Your task to perform on an android device: toggle notifications settings in the gmail app Image 0: 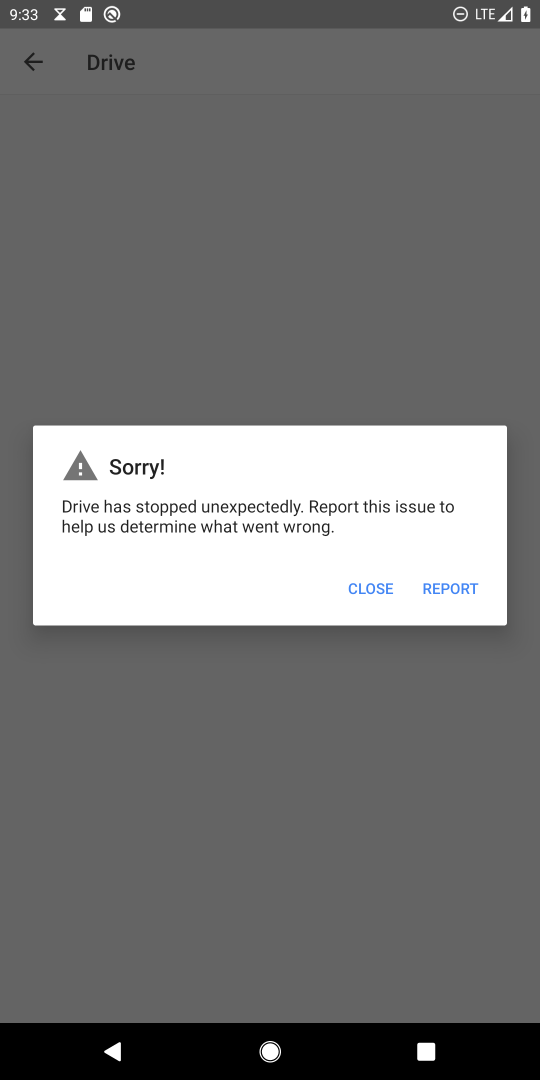
Step 0: press home button
Your task to perform on an android device: toggle notifications settings in the gmail app Image 1: 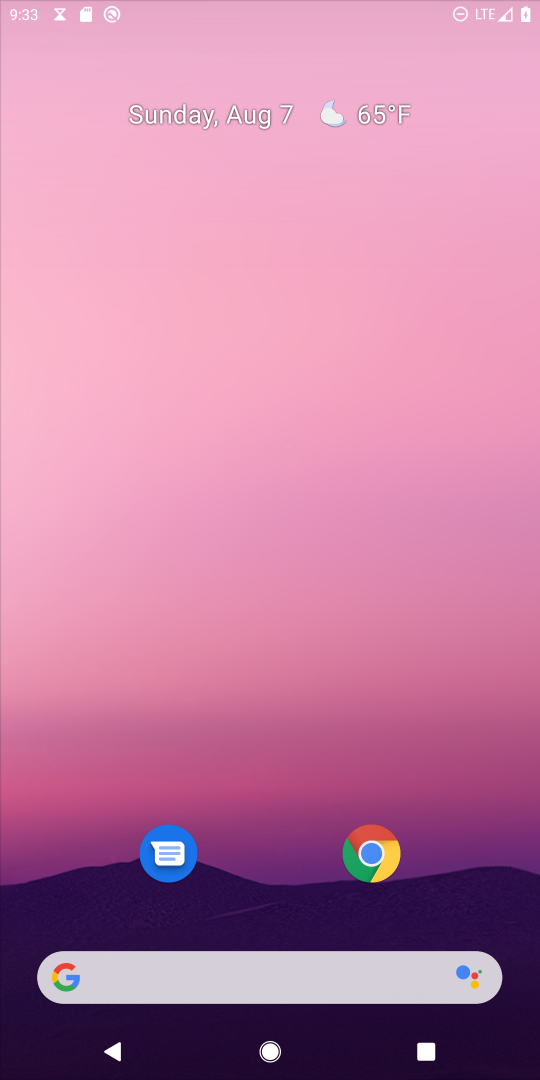
Step 1: drag from (232, 970) to (240, 480)
Your task to perform on an android device: toggle notifications settings in the gmail app Image 2: 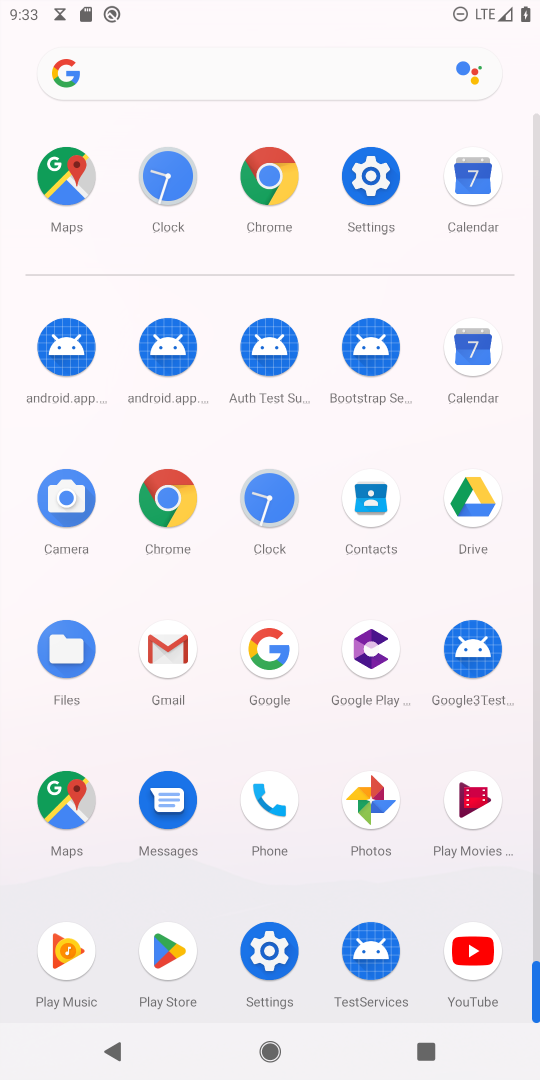
Step 2: click (369, 166)
Your task to perform on an android device: toggle notifications settings in the gmail app Image 3: 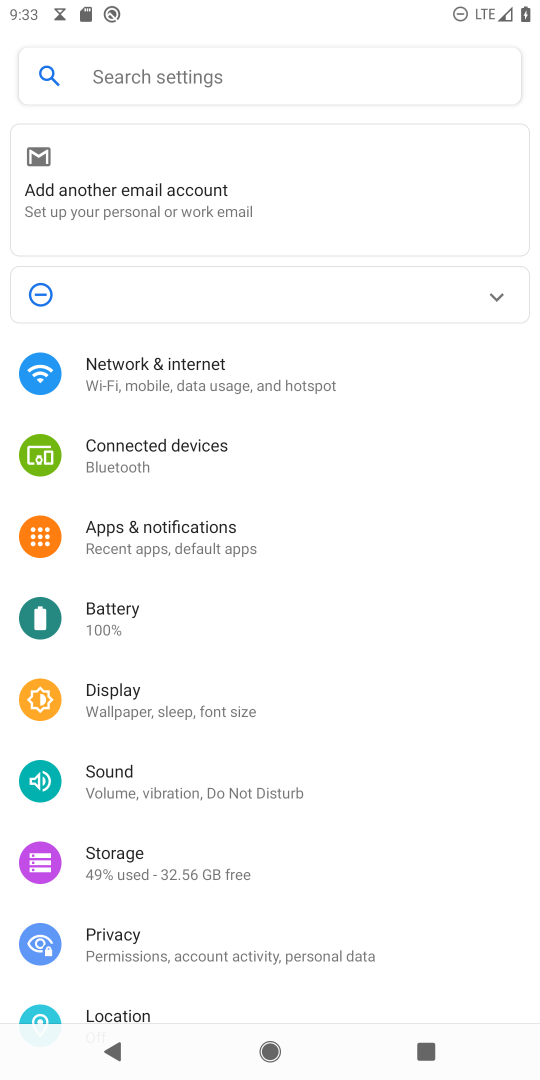
Step 3: click (200, 551)
Your task to perform on an android device: toggle notifications settings in the gmail app Image 4: 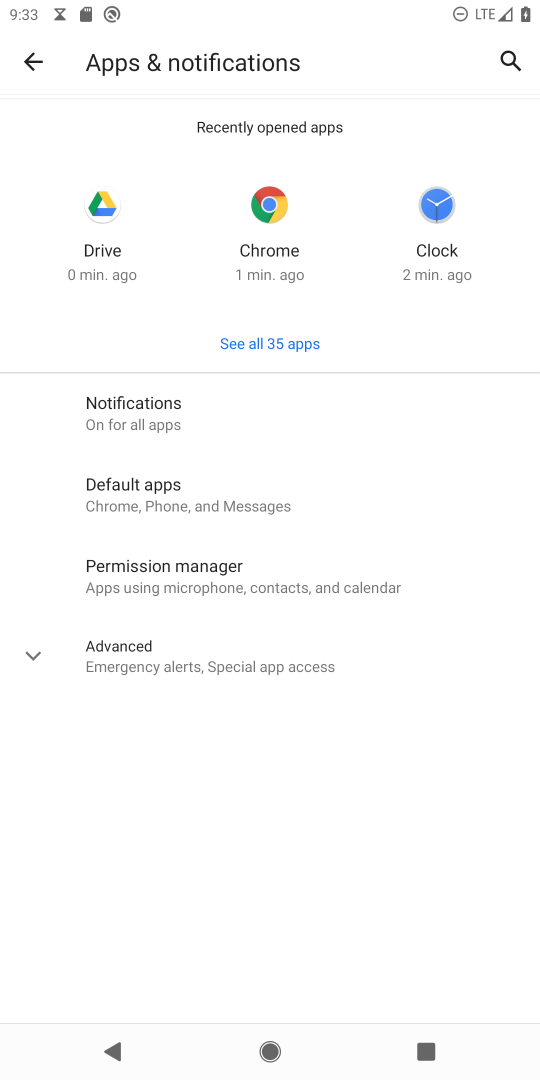
Step 4: click (181, 400)
Your task to perform on an android device: toggle notifications settings in the gmail app Image 5: 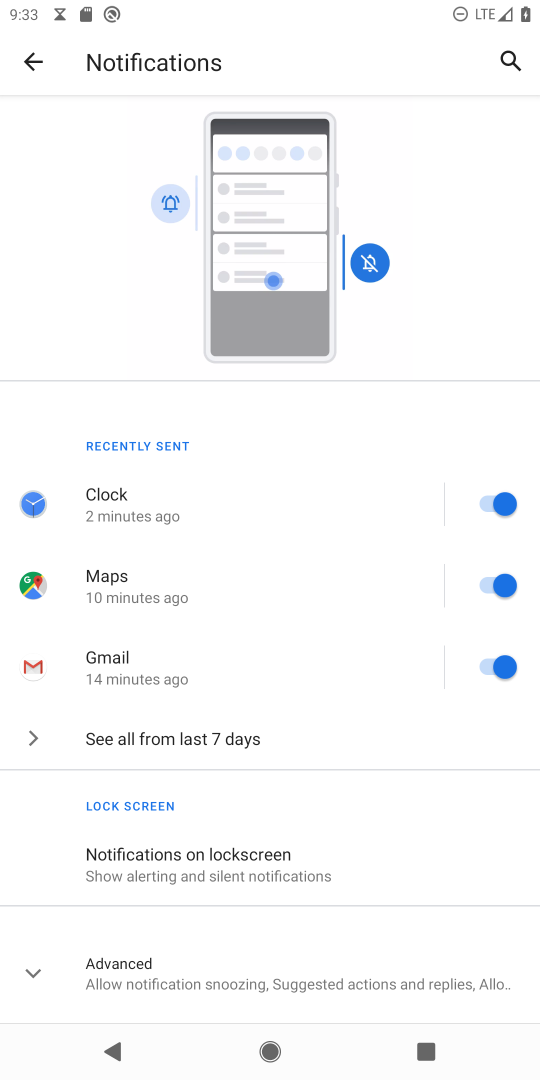
Step 5: click (241, 736)
Your task to perform on an android device: toggle notifications settings in the gmail app Image 6: 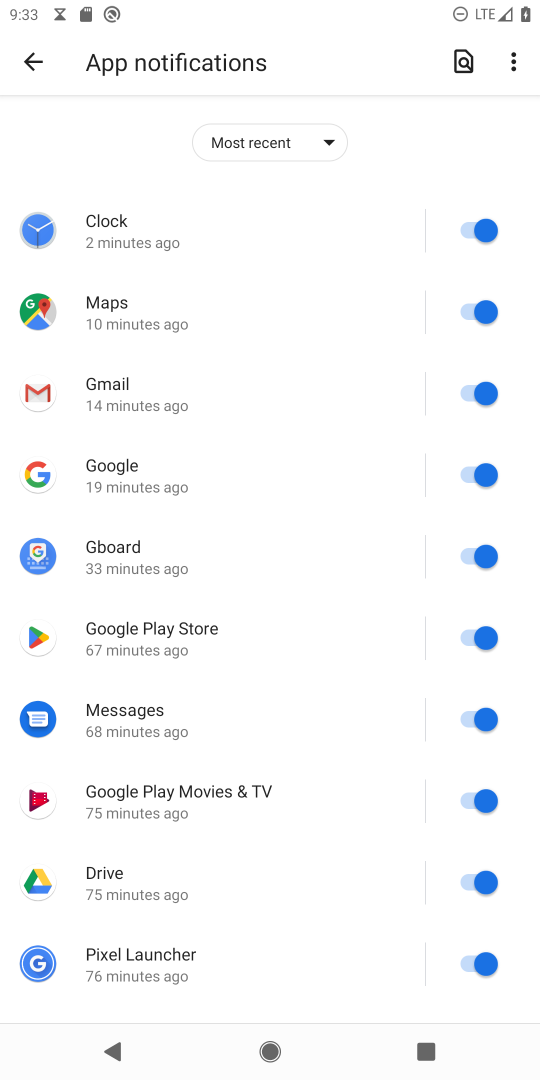
Step 6: click (465, 231)
Your task to perform on an android device: toggle notifications settings in the gmail app Image 7: 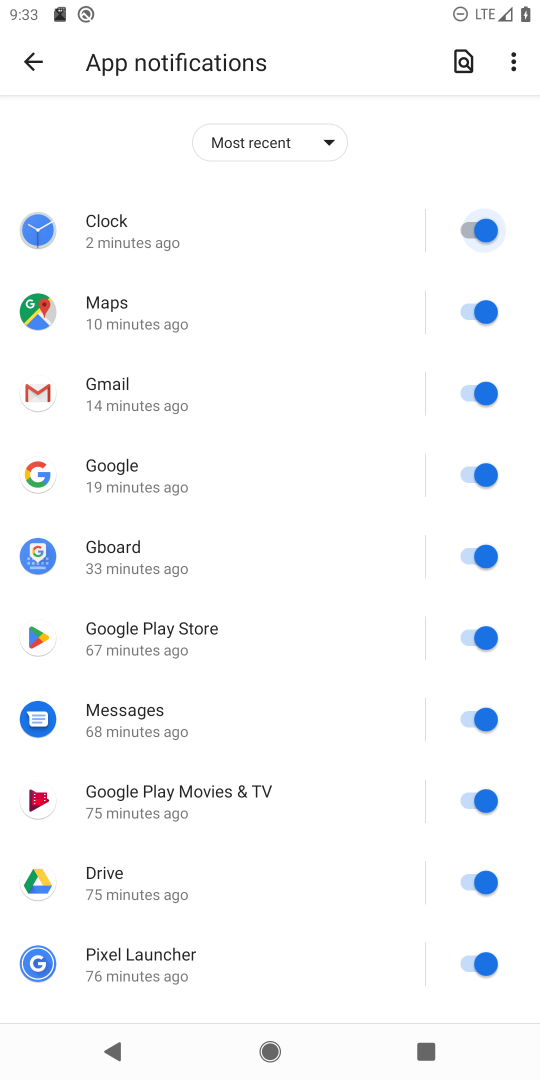
Step 7: click (468, 315)
Your task to perform on an android device: toggle notifications settings in the gmail app Image 8: 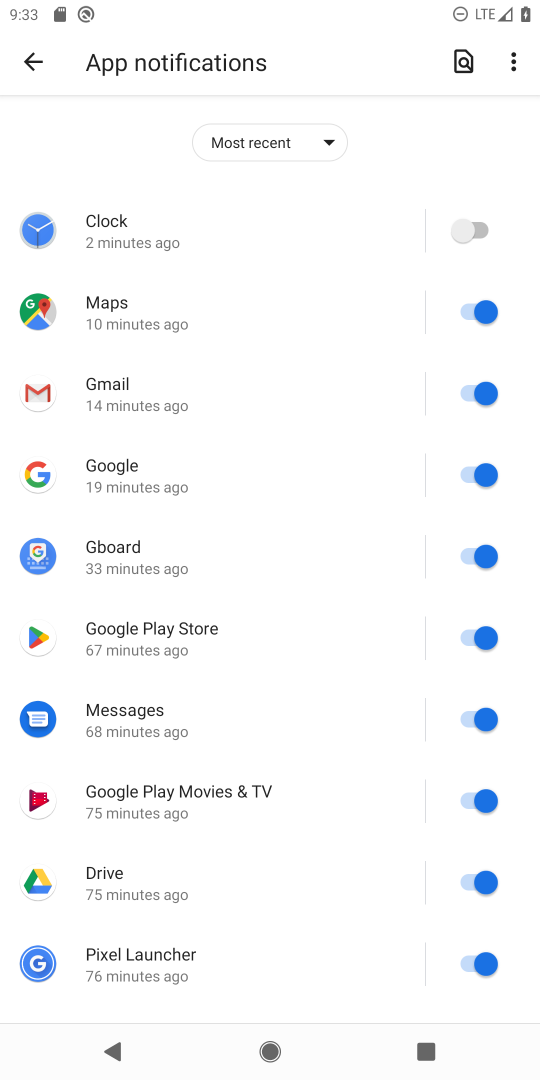
Step 8: click (459, 404)
Your task to perform on an android device: toggle notifications settings in the gmail app Image 9: 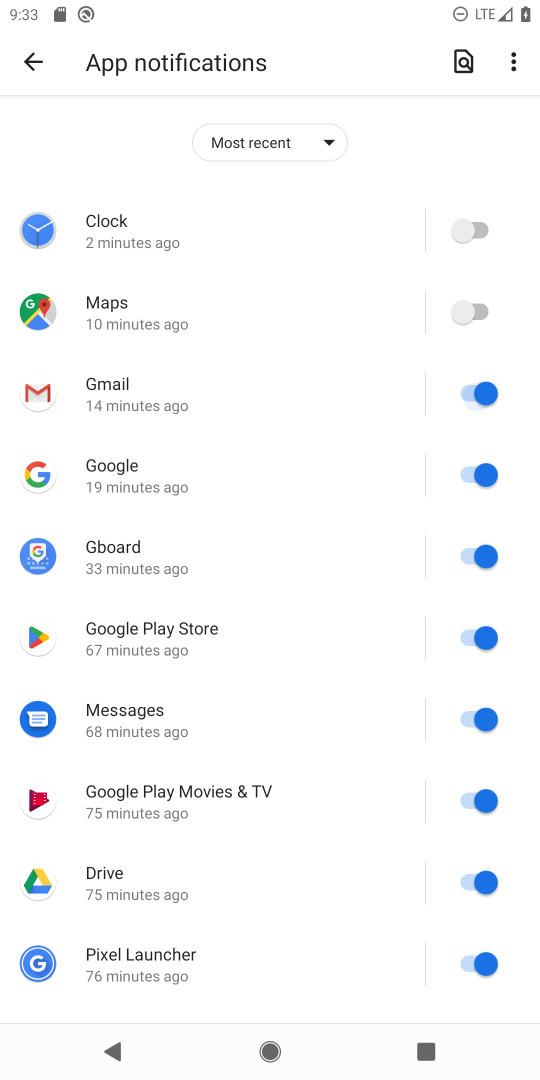
Step 9: click (459, 477)
Your task to perform on an android device: toggle notifications settings in the gmail app Image 10: 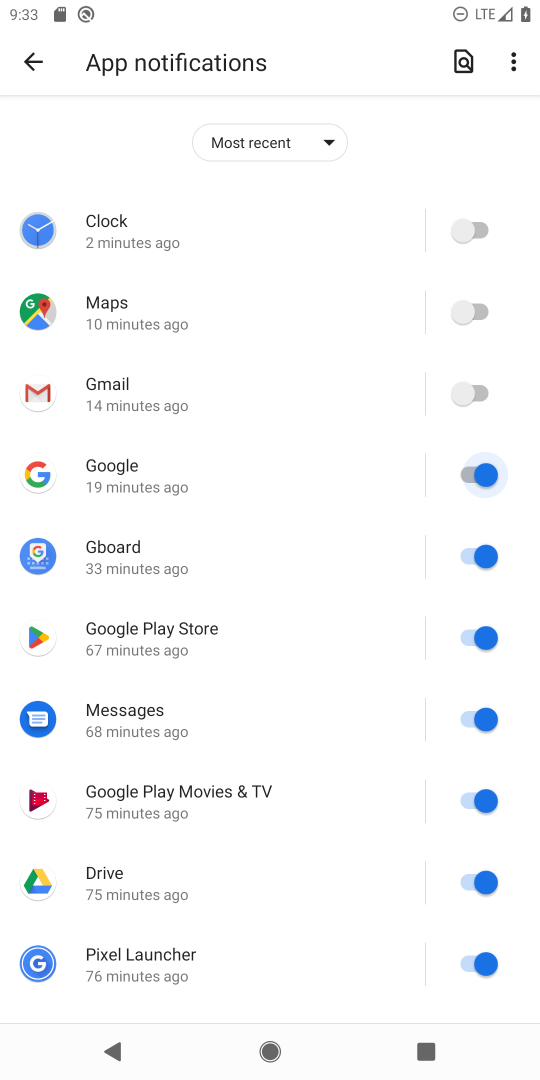
Step 10: click (459, 607)
Your task to perform on an android device: toggle notifications settings in the gmail app Image 11: 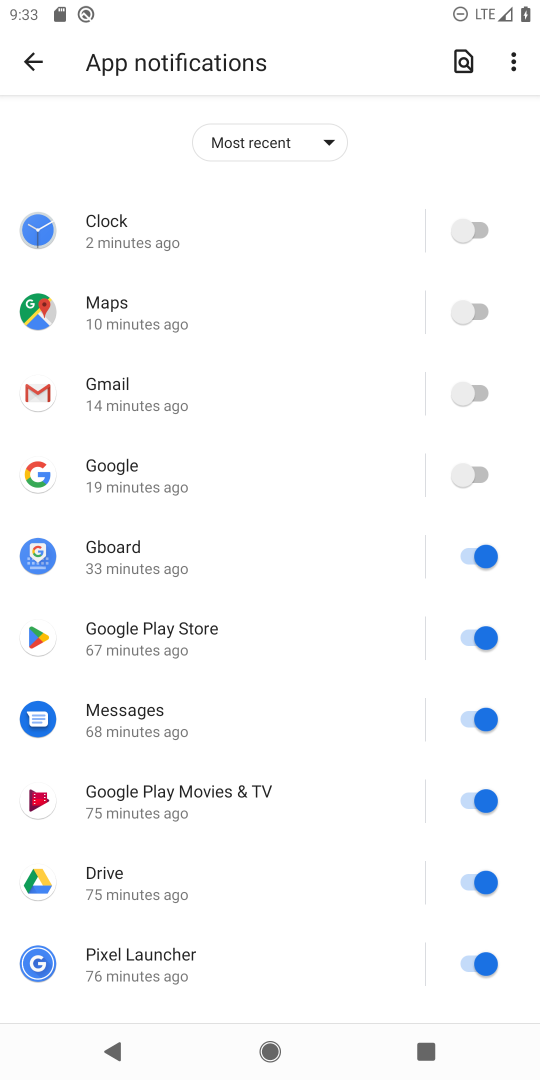
Step 11: click (468, 554)
Your task to perform on an android device: toggle notifications settings in the gmail app Image 12: 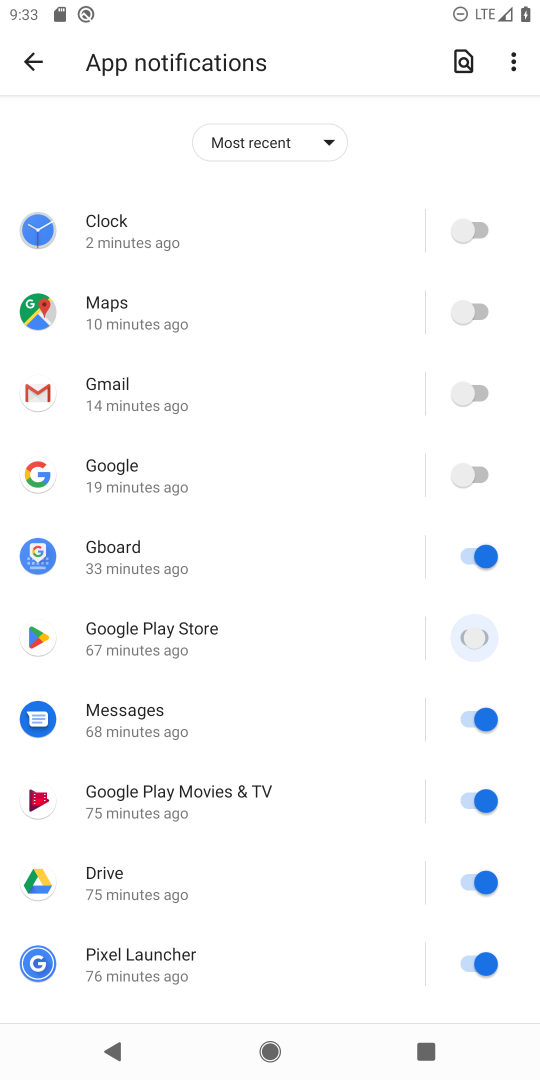
Step 12: click (461, 665)
Your task to perform on an android device: toggle notifications settings in the gmail app Image 13: 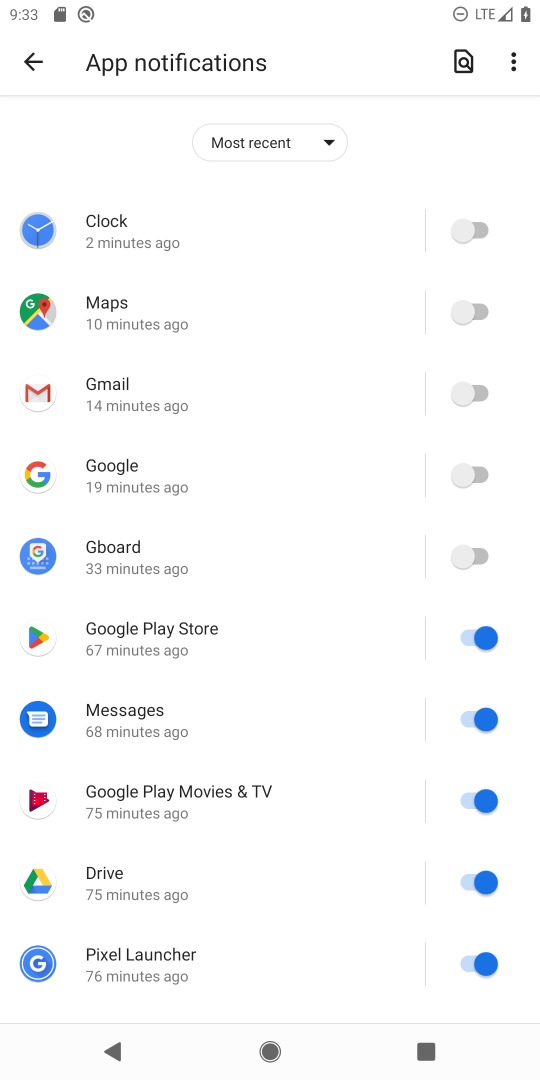
Step 13: click (467, 713)
Your task to perform on an android device: toggle notifications settings in the gmail app Image 14: 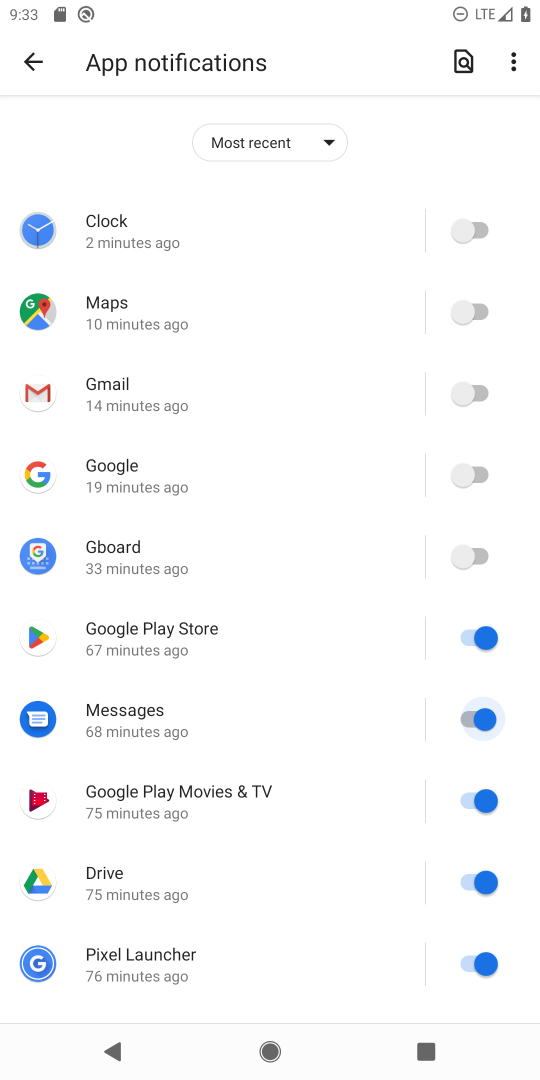
Step 14: click (470, 797)
Your task to perform on an android device: toggle notifications settings in the gmail app Image 15: 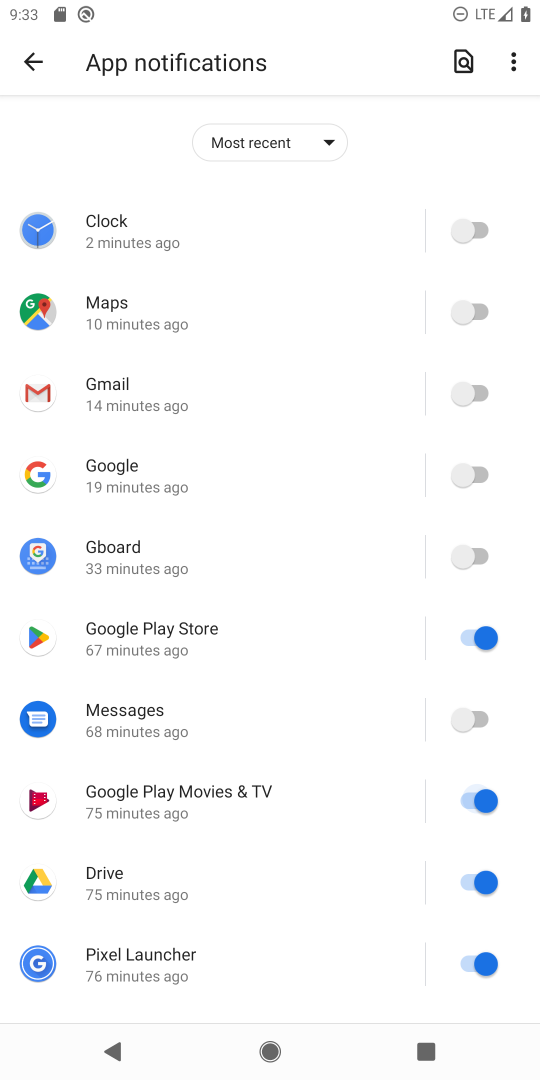
Step 15: click (470, 882)
Your task to perform on an android device: toggle notifications settings in the gmail app Image 16: 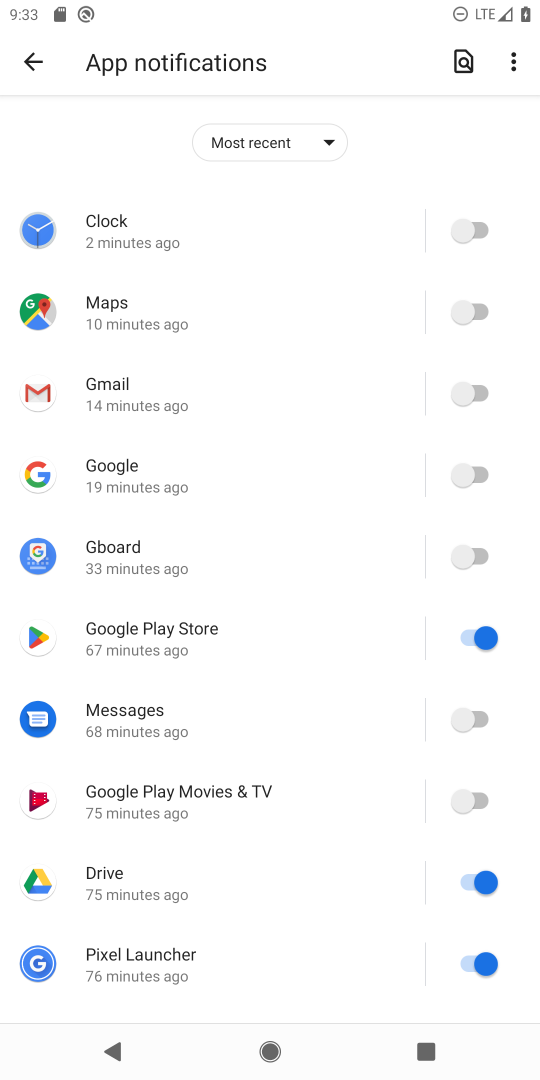
Step 16: click (464, 972)
Your task to perform on an android device: toggle notifications settings in the gmail app Image 17: 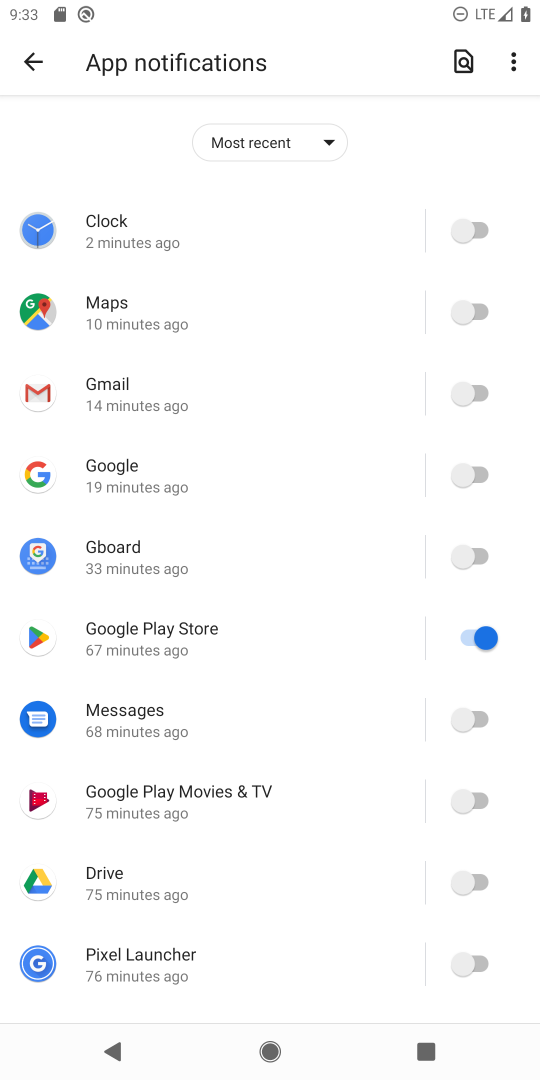
Step 17: click (481, 616)
Your task to perform on an android device: toggle notifications settings in the gmail app Image 18: 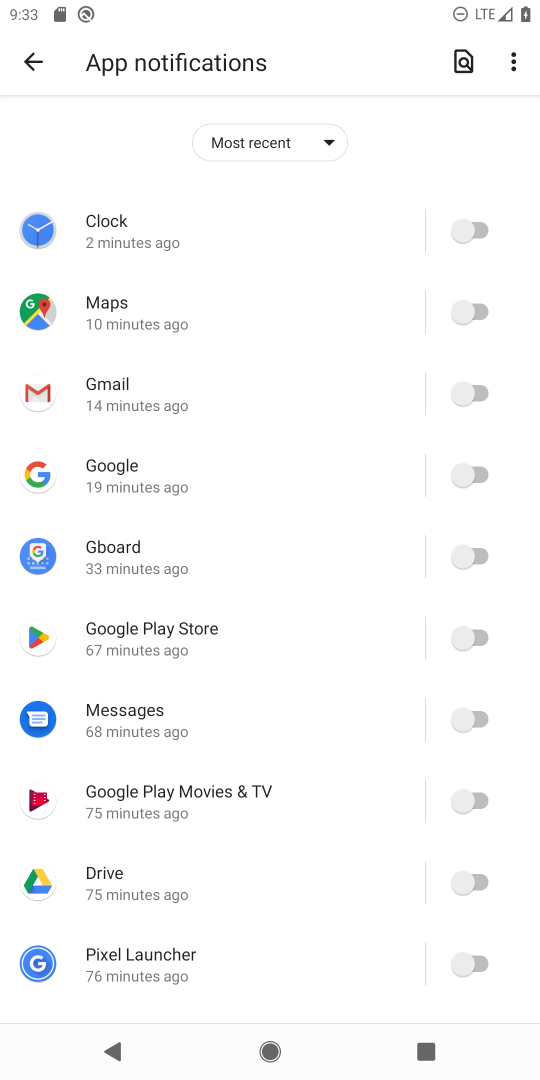
Step 18: task complete